Your task to perform on an android device: toggle notifications settings in the gmail app Image 0: 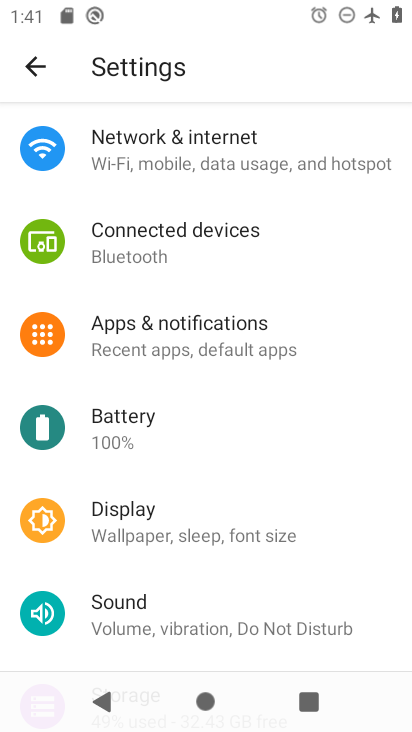
Step 0: press home button
Your task to perform on an android device: toggle notifications settings in the gmail app Image 1: 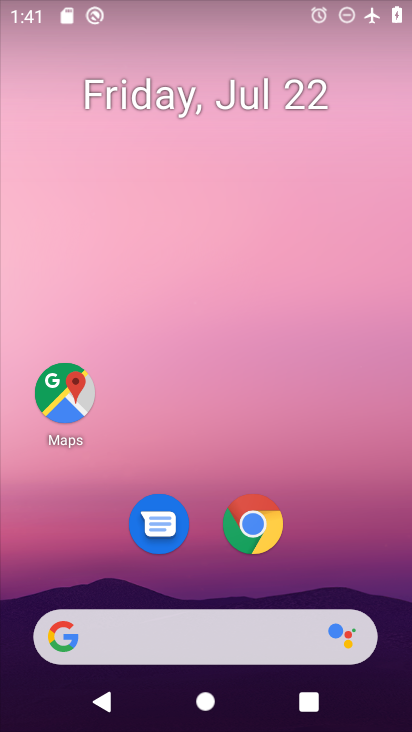
Step 1: drag from (347, 557) to (369, 34)
Your task to perform on an android device: toggle notifications settings in the gmail app Image 2: 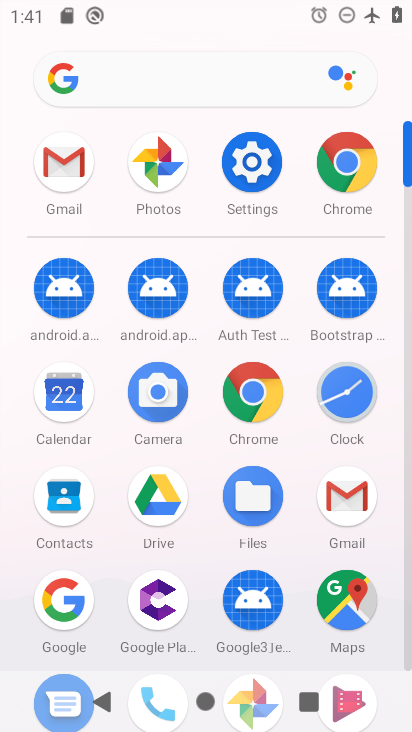
Step 2: click (68, 161)
Your task to perform on an android device: toggle notifications settings in the gmail app Image 3: 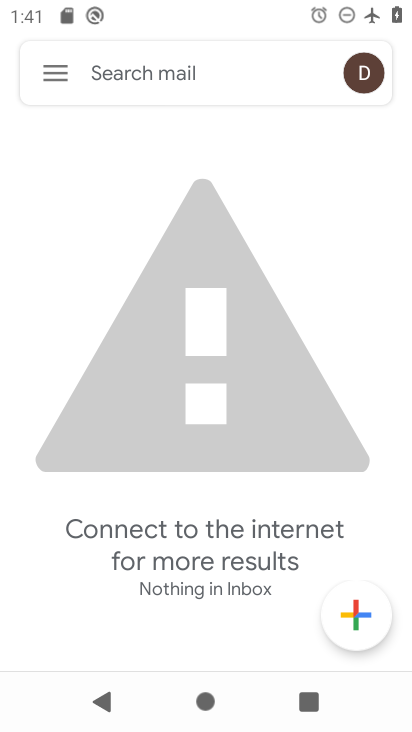
Step 3: click (56, 65)
Your task to perform on an android device: toggle notifications settings in the gmail app Image 4: 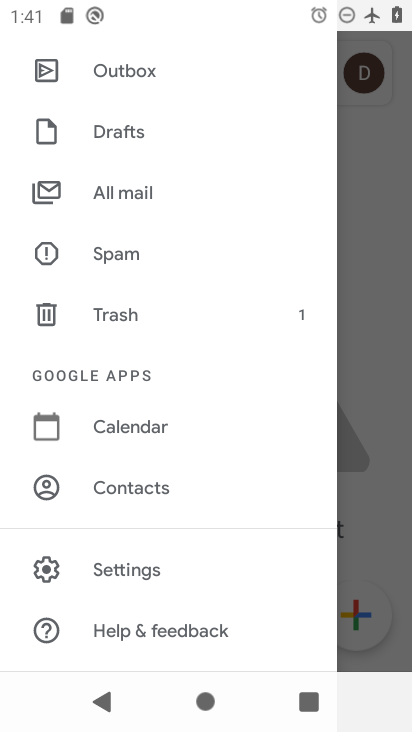
Step 4: click (117, 562)
Your task to perform on an android device: toggle notifications settings in the gmail app Image 5: 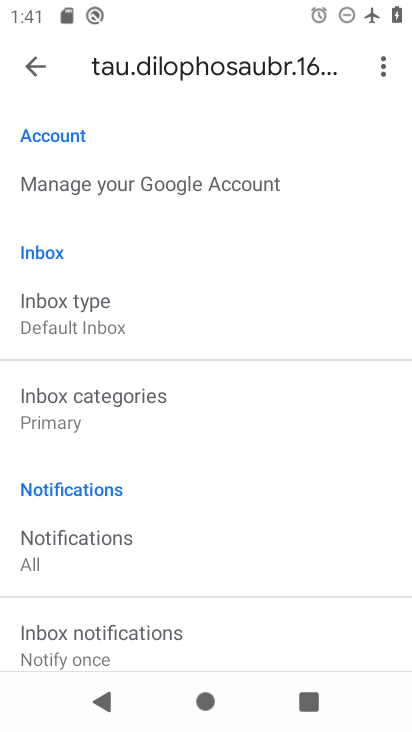
Step 5: drag from (193, 541) to (237, 217)
Your task to perform on an android device: toggle notifications settings in the gmail app Image 6: 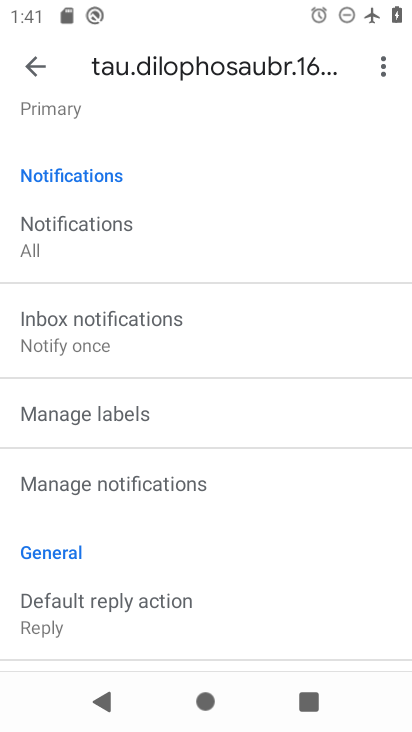
Step 6: click (196, 484)
Your task to perform on an android device: toggle notifications settings in the gmail app Image 7: 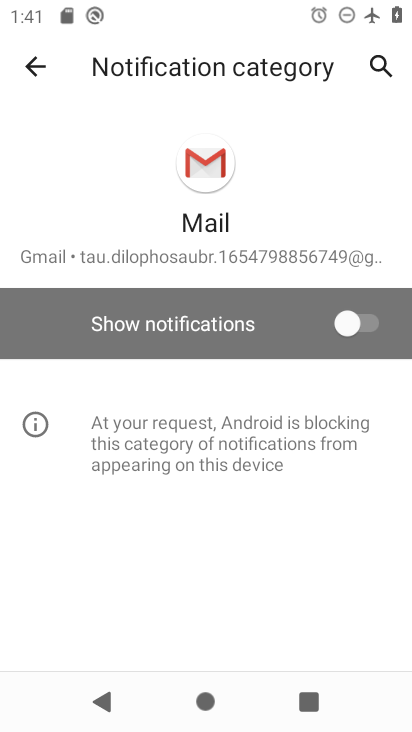
Step 7: click (355, 323)
Your task to perform on an android device: toggle notifications settings in the gmail app Image 8: 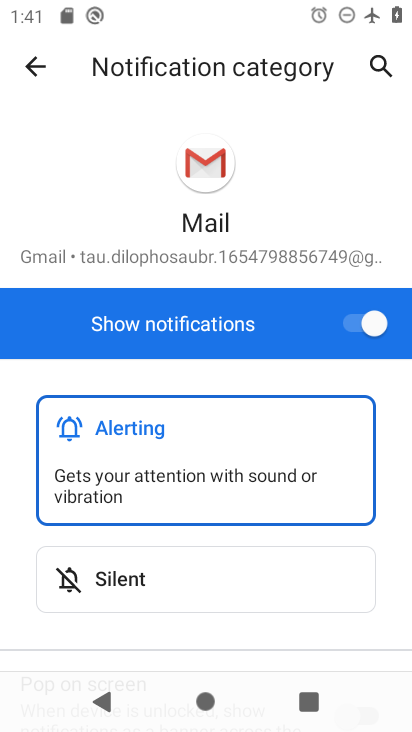
Step 8: task complete